Your task to perform on an android device: turn on showing notifications on the lock screen Image 0: 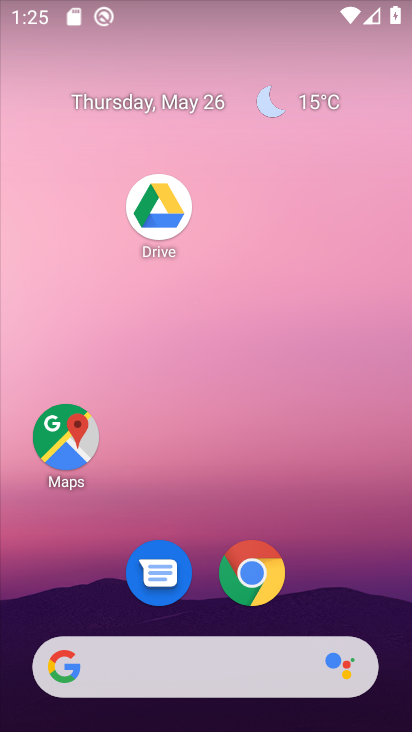
Step 0: drag from (328, 612) to (268, 33)
Your task to perform on an android device: turn on showing notifications on the lock screen Image 1: 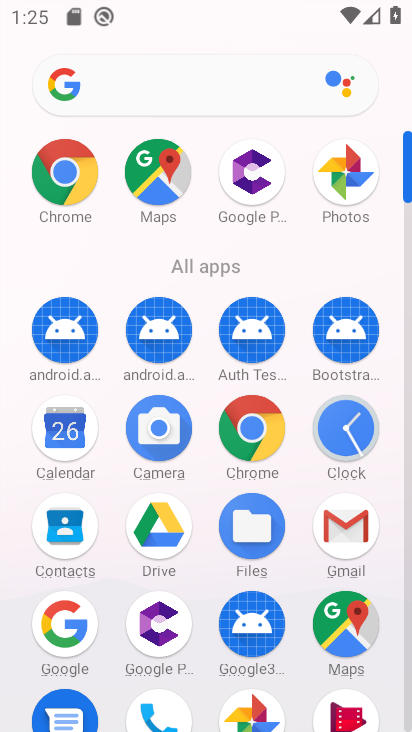
Step 1: drag from (194, 288) to (215, 2)
Your task to perform on an android device: turn on showing notifications on the lock screen Image 2: 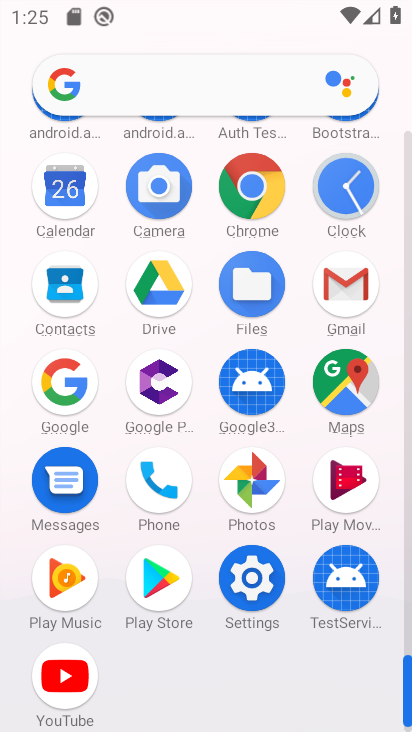
Step 2: click (238, 599)
Your task to perform on an android device: turn on showing notifications on the lock screen Image 3: 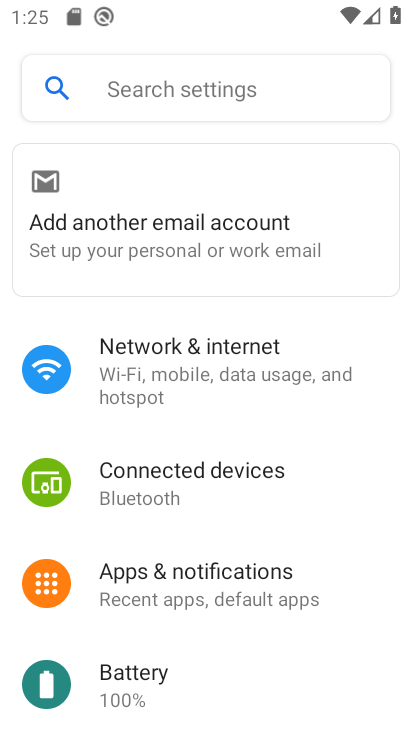
Step 3: click (206, 588)
Your task to perform on an android device: turn on showing notifications on the lock screen Image 4: 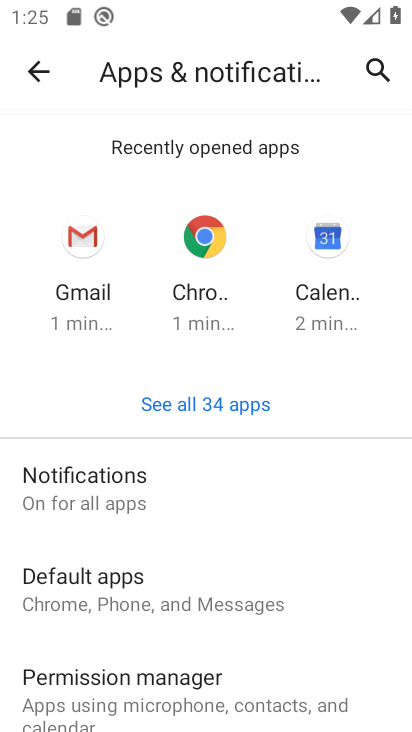
Step 4: click (121, 470)
Your task to perform on an android device: turn on showing notifications on the lock screen Image 5: 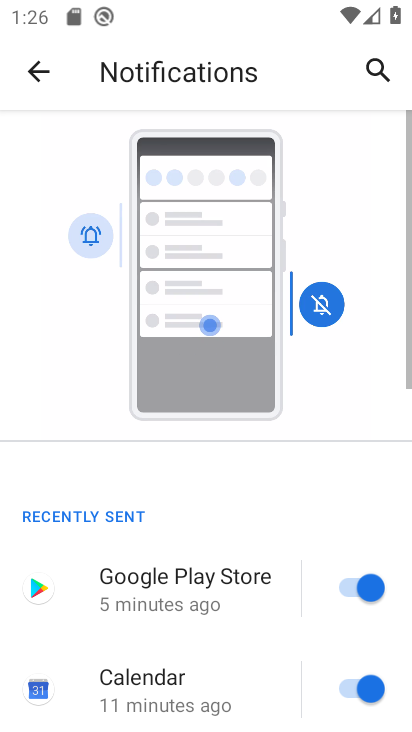
Step 5: drag from (203, 604) to (179, 85)
Your task to perform on an android device: turn on showing notifications on the lock screen Image 6: 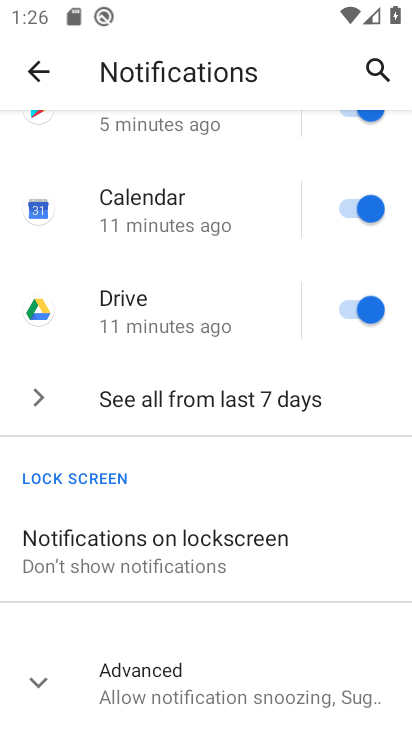
Step 6: click (191, 547)
Your task to perform on an android device: turn on showing notifications on the lock screen Image 7: 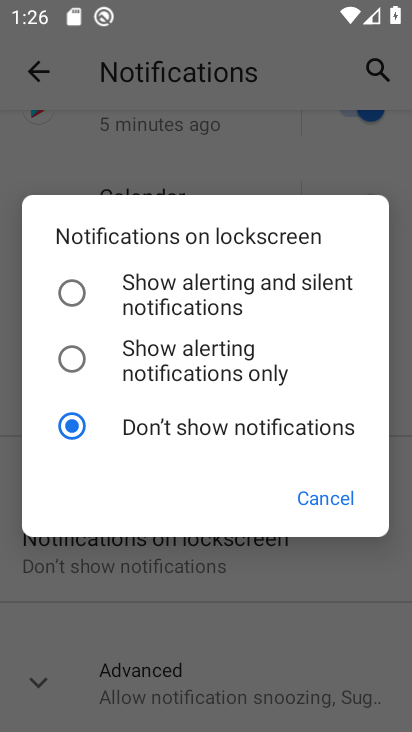
Step 7: click (192, 289)
Your task to perform on an android device: turn on showing notifications on the lock screen Image 8: 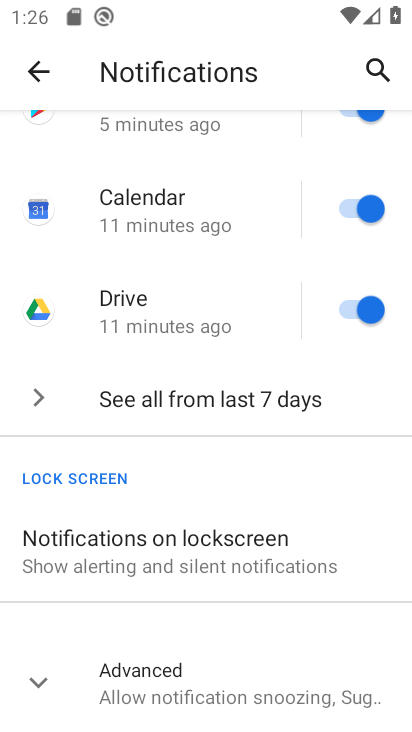
Step 8: task complete